Your task to perform on an android device: Open notification settings Image 0: 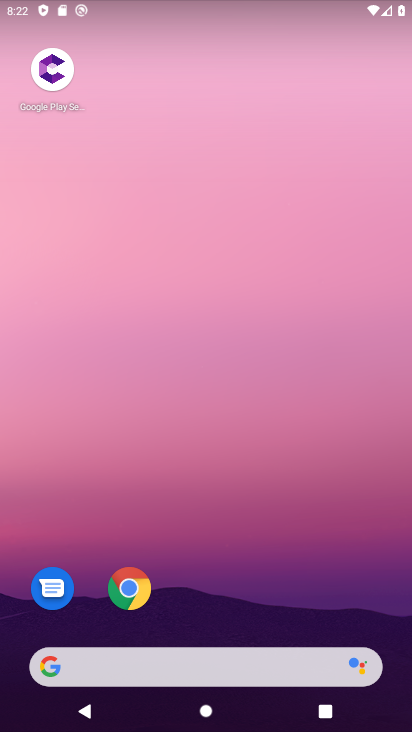
Step 0: drag from (353, 437) to (388, 13)
Your task to perform on an android device: Open notification settings Image 1: 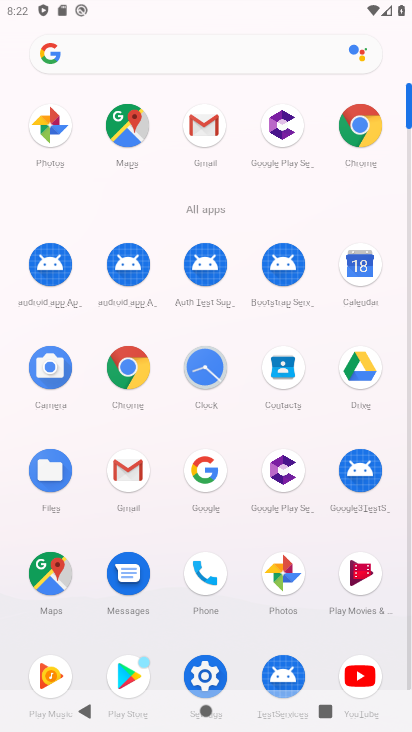
Step 1: drag from (388, 595) to (406, 360)
Your task to perform on an android device: Open notification settings Image 2: 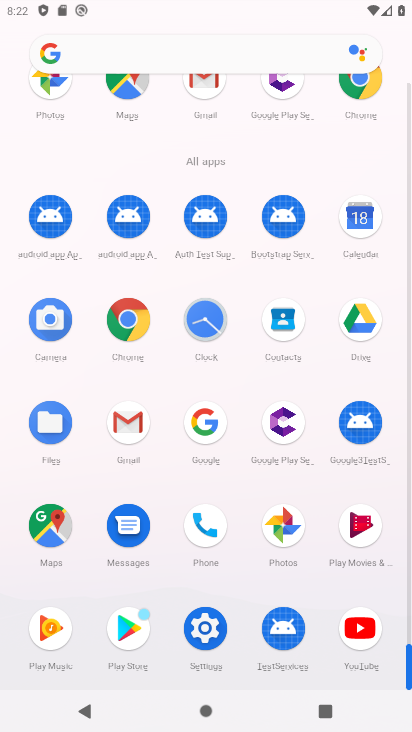
Step 2: click (203, 623)
Your task to perform on an android device: Open notification settings Image 3: 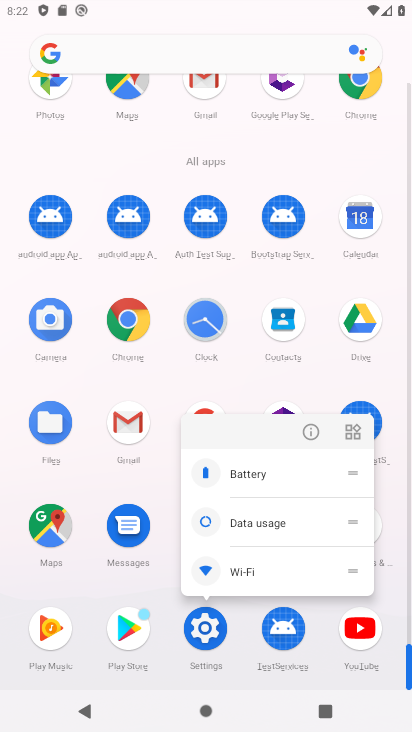
Step 3: click (208, 637)
Your task to perform on an android device: Open notification settings Image 4: 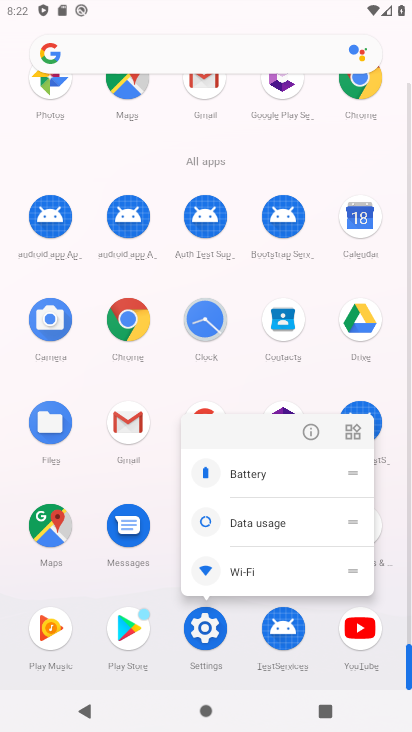
Step 4: click (208, 636)
Your task to perform on an android device: Open notification settings Image 5: 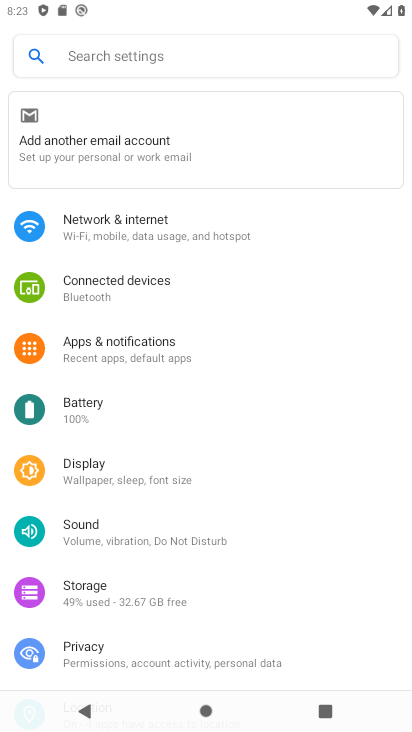
Step 5: click (160, 359)
Your task to perform on an android device: Open notification settings Image 6: 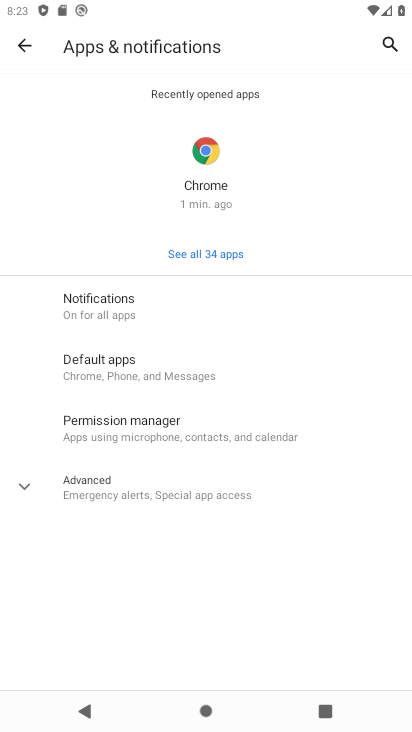
Step 6: click (88, 313)
Your task to perform on an android device: Open notification settings Image 7: 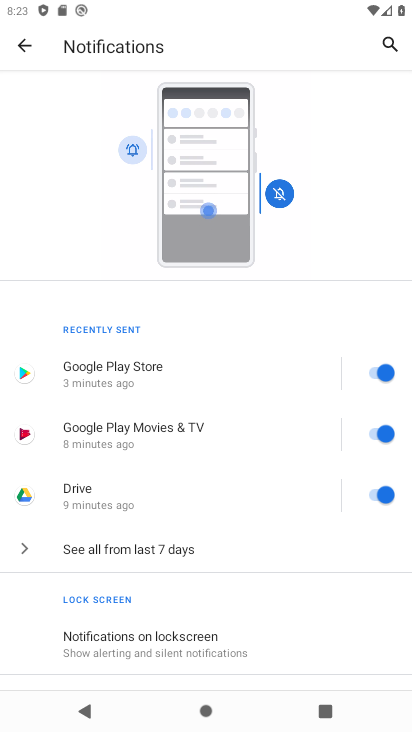
Step 7: task complete